Your task to perform on an android device: open chrome and create a bookmark for the current page Image 0: 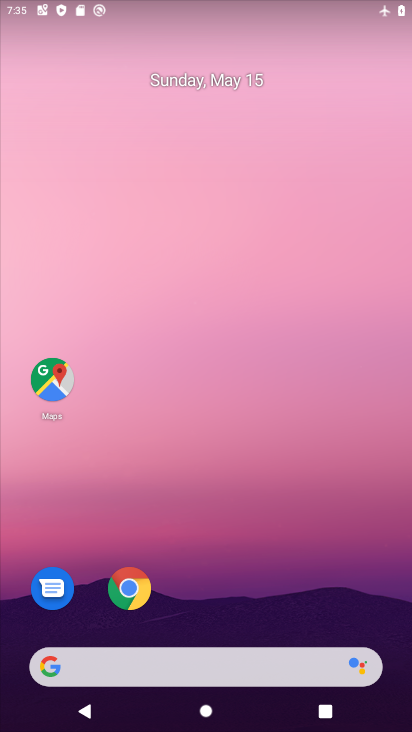
Step 0: drag from (369, 598) to (323, 83)
Your task to perform on an android device: open chrome and create a bookmark for the current page Image 1: 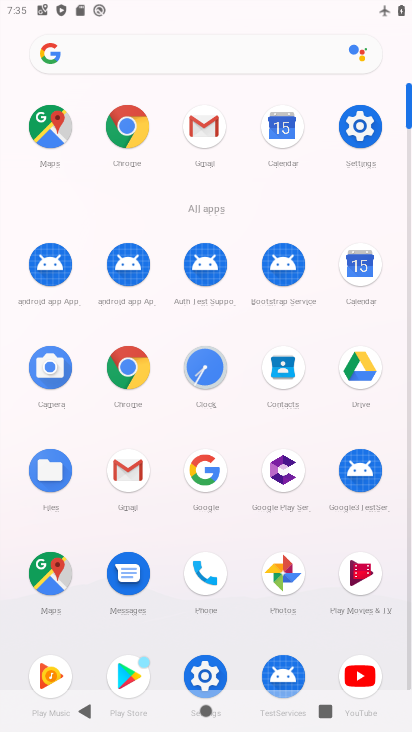
Step 1: click (122, 366)
Your task to perform on an android device: open chrome and create a bookmark for the current page Image 2: 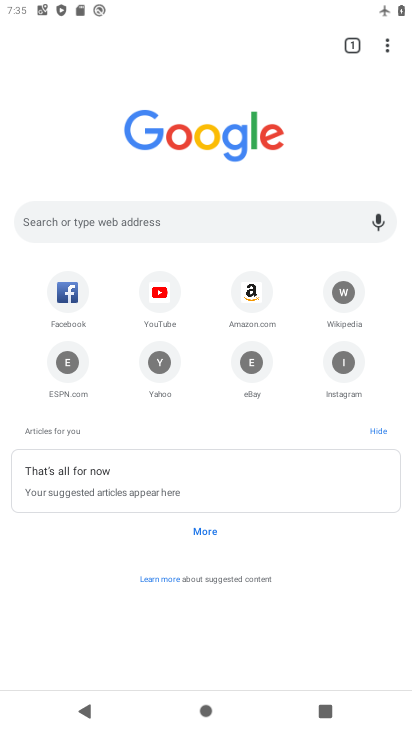
Step 2: click (381, 47)
Your task to perform on an android device: open chrome and create a bookmark for the current page Image 3: 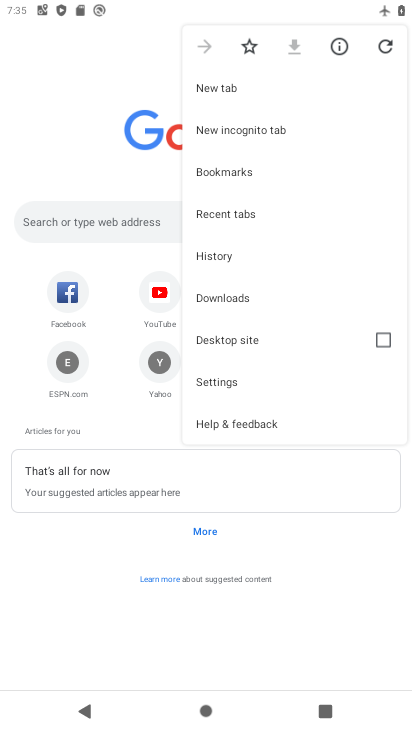
Step 3: click (241, 42)
Your task to perform on an android device: open chrome and create a bookmark for the current page Image 4: 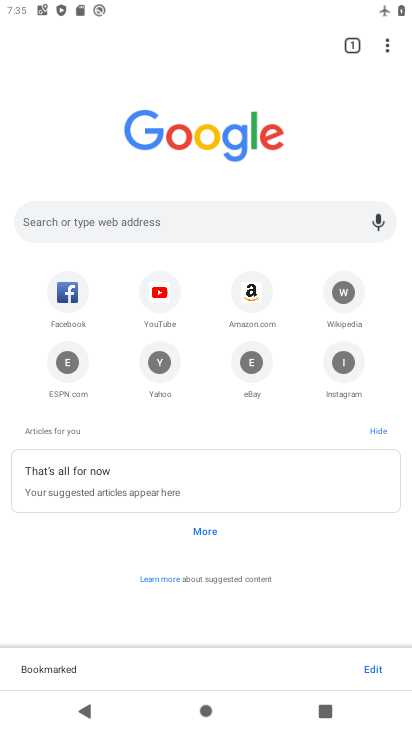
Step 4: task complete